Your task to perform on an android device: Go to accessibility settings Image 0: 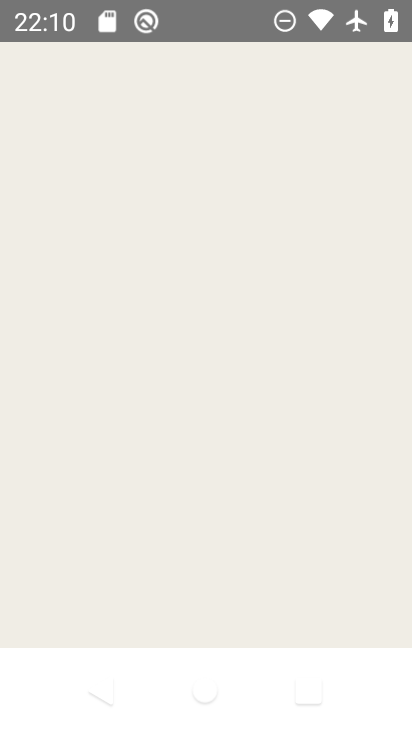
Step 0: press home button
Your task to perform on an android device: Go to accessibility settings Image 1: 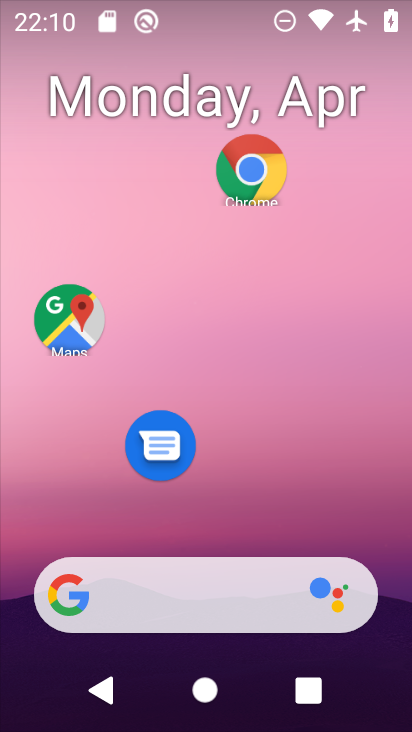
Step 1: drag from (238, 530) to (245, 196)
Your task to perform on an android device: Go to accessibility settings Image 2: 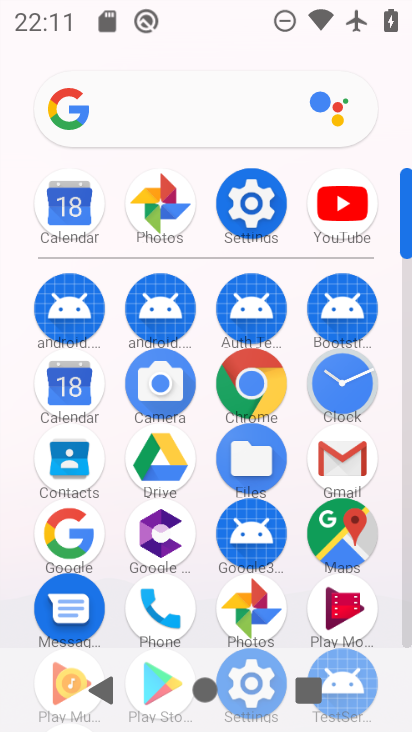
Step 2: click (261, 215)
Your task to perform on an android device: Go to accessibility settings Image 3: 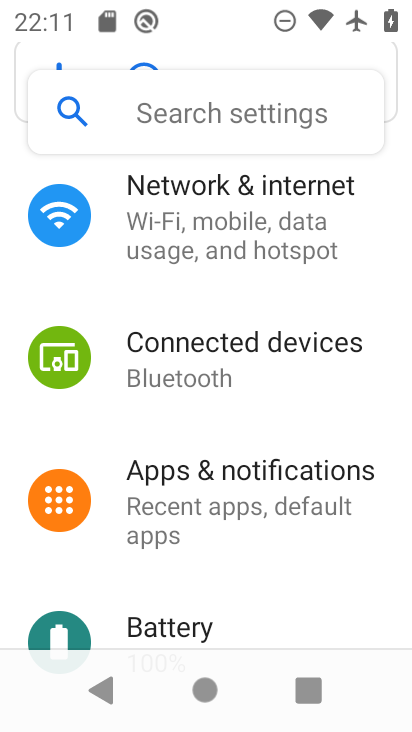
Step 3: drag from (218, 586) to (229, 297)
Your task to perform on an android device: Go to accessibility settings Image 4: 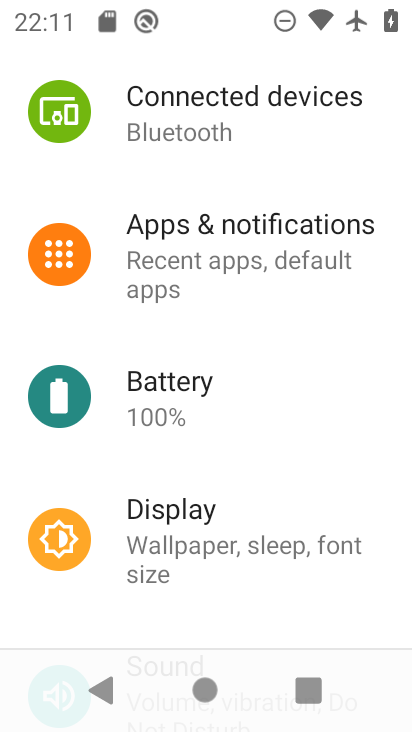
Step 4: drag from (263, 488) to (272, 211)
Your task to perform on an android device: Go to accessibility settings Image 5: 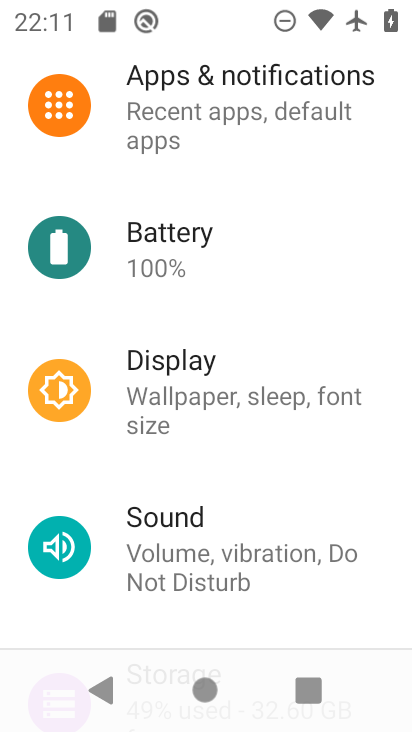
Step 5: drag from (256, 539) to (256, 218)
Your task to perform on an android device: Go to accessibility settings Image 6: 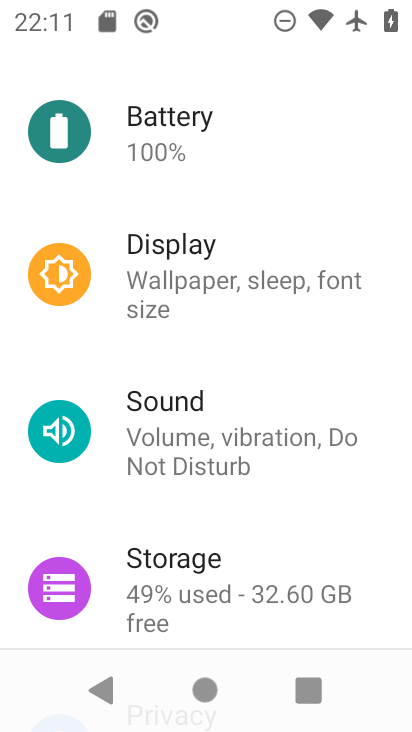
Step 6: drag from (270, 502) to (270, 206)
Your task to perform on an android device: Go to accessibility settings Image 7: 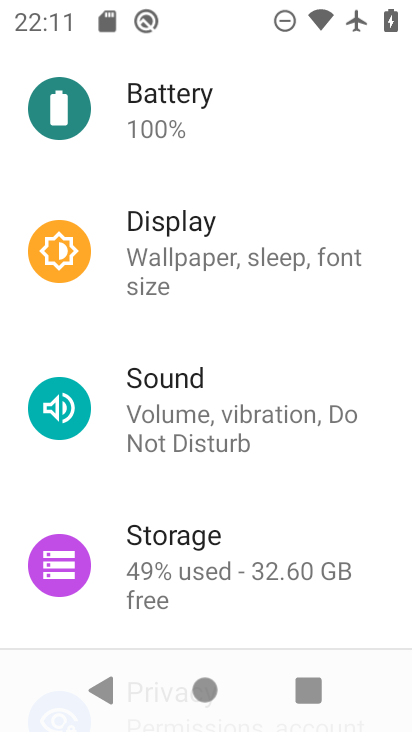
Step 7: drag from (275, 463) to (261, 248)
Your task to perform on an android device: Go to accessibility settings Image 8: 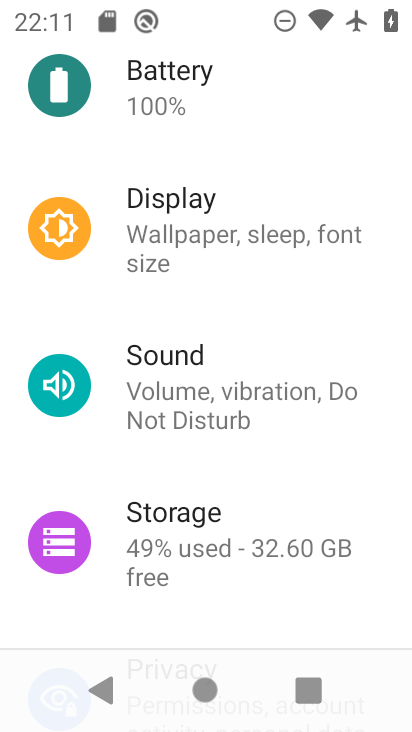
Step 8: drag from (261, 489) to (235, 238)
Your task to perform on an android device: Go to accessibility settings Image 9: 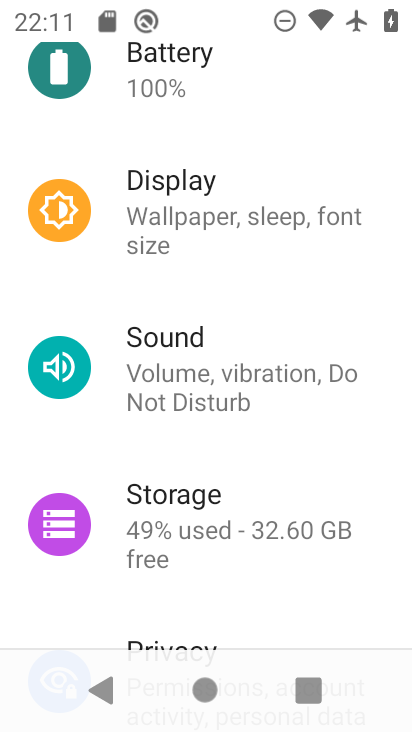
Step 9: drag from (246, 512) to (232, 237)
Your task to perform on an android device: Go to accessibility settings Image 10: 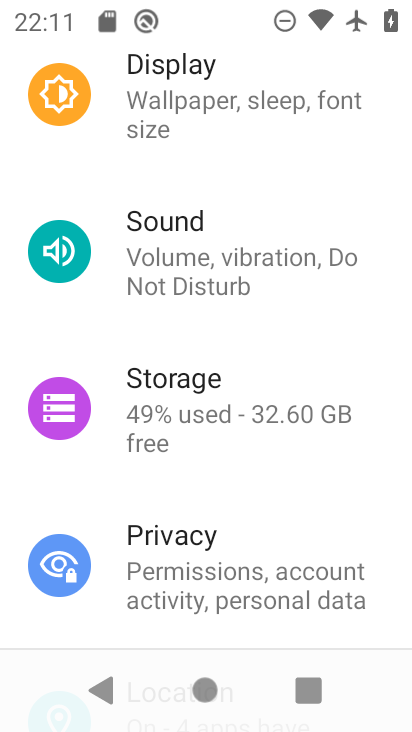
Step 10: drag from (253, 517) to (251, 229)
Your task to perform on an android device: Go to accessibility settings Image 11: 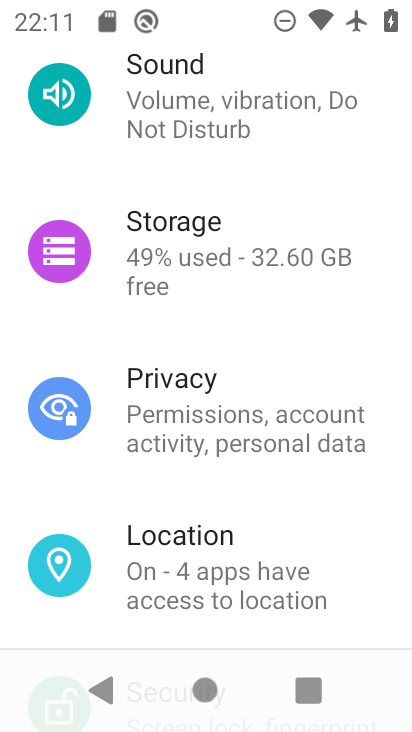
Step 11: drag from (277, 490) to (275, 247)
Your task to perform on an android device: Go to accessibility settings Image 12: 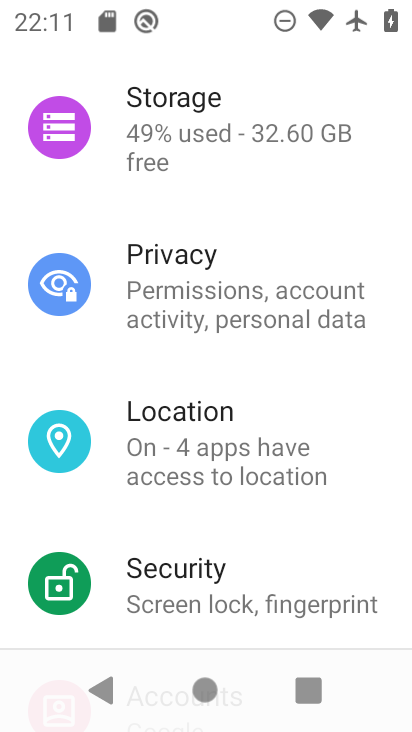
Step 12: drag from (272, 479) to (285, 237)
Your task to perform on an android device: Go to accessibility settings Image 13: 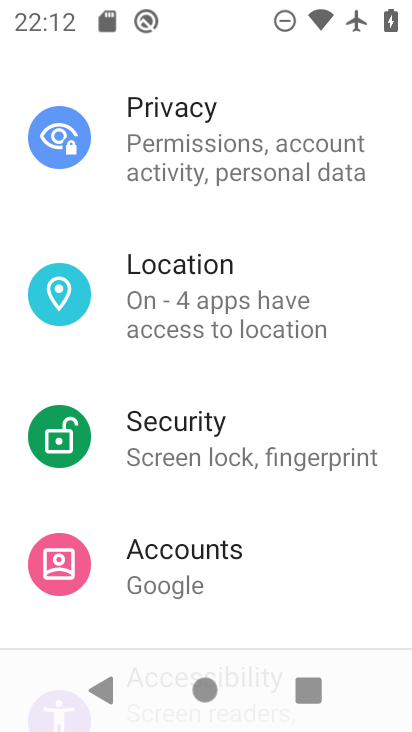
Step 13: drag from (253, 553) to (257, 301)
Your task to perform on an android device: Go to accessibility settings Image 14: 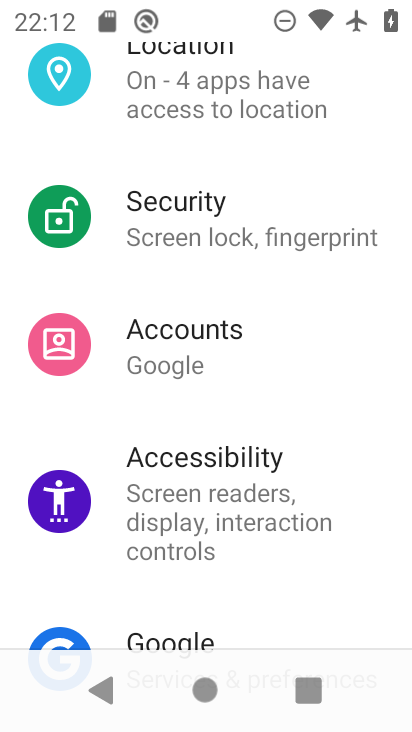
Step 14: click (273, 466)
Your task to perform on an android device: Go to accessibility settings Image 15: 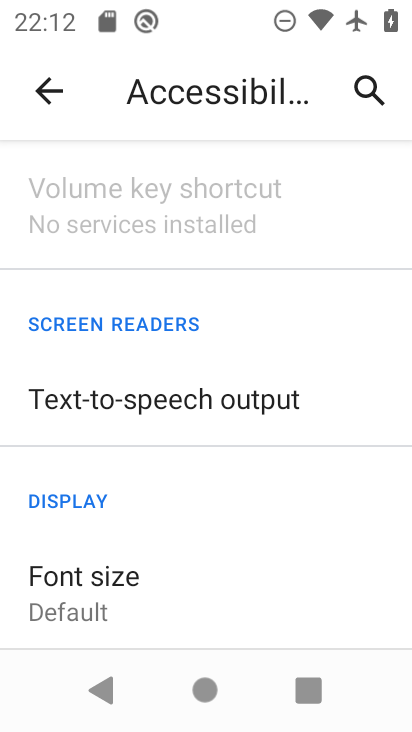
Step 15: task complete